Your task to perform on an android device: change the clock display to digital Image 0: 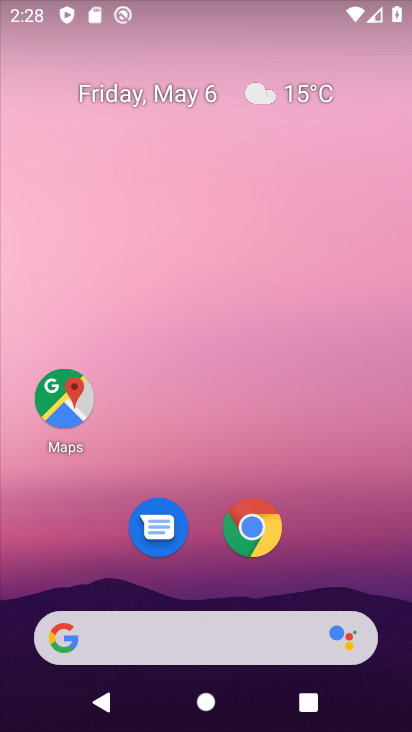
Step 0: drag from (170, 612) to (334, 222)
Your task to perform on an android device: change the clock display to digital Image 1: 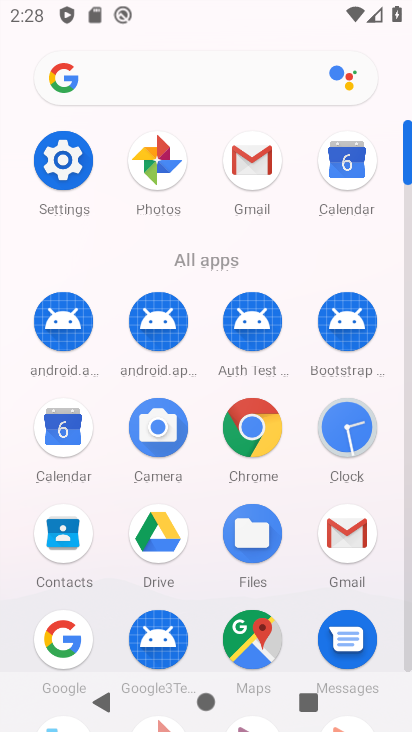
Step 1: click (341, 431)
Your task to perform on an android device: change the clock display to digital Image 2: 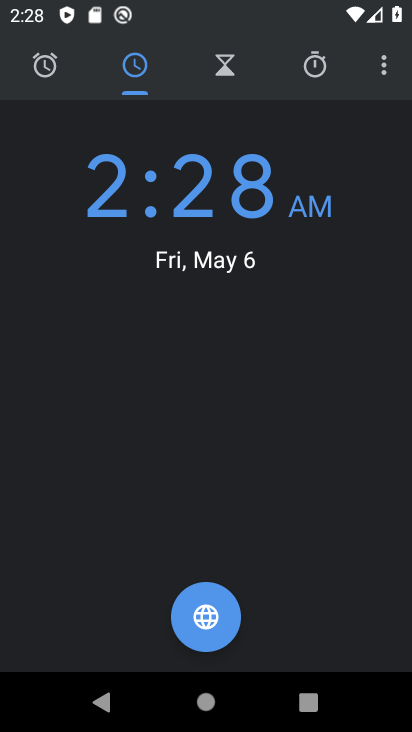
Step 2: click (378, 72)
Your task to perform on an android device: change the clock display to digital Image 3: 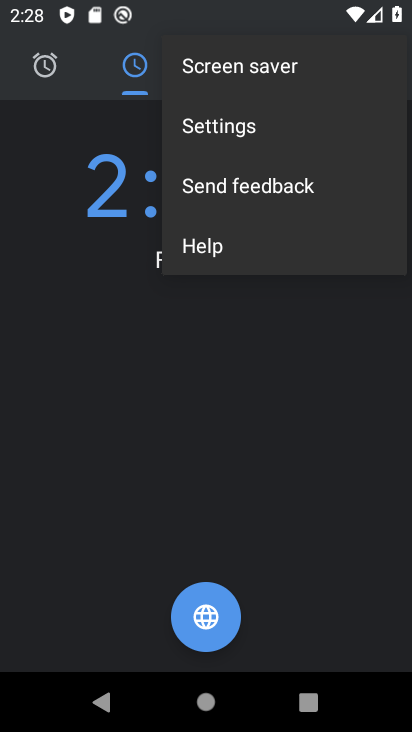
Step 3: click (253, 134)
Your task to perform on an android device: change the clock display to digital Image 4: 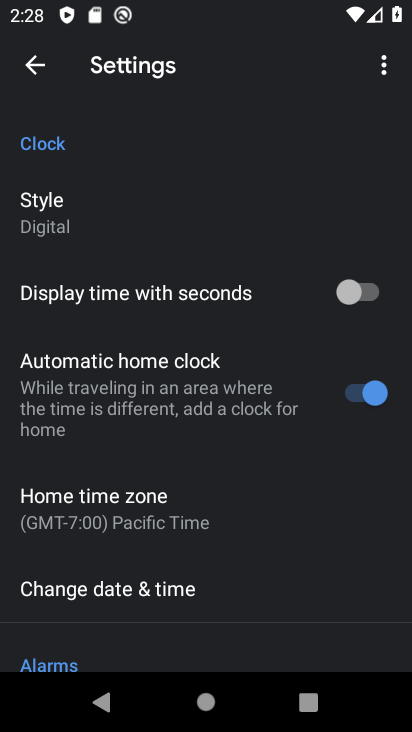
Step 4: drag from (188, 536) to (211, 248)
Your task to perform on an android device: change the clock display to digital Image 5: 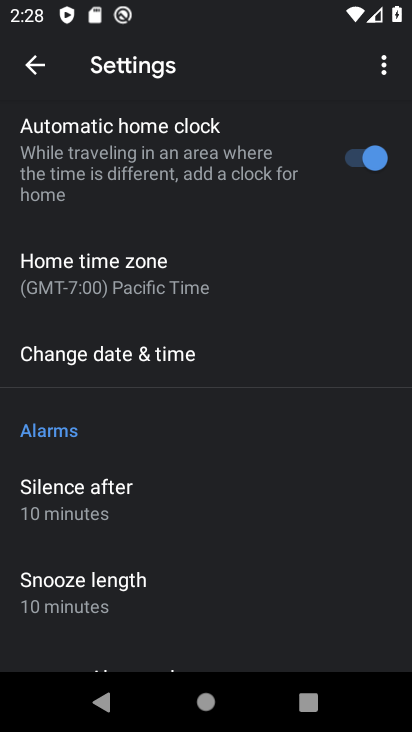
Step 5: click (45, 185)
Your task to perform on an android device: change the clock display to digital Image 6: 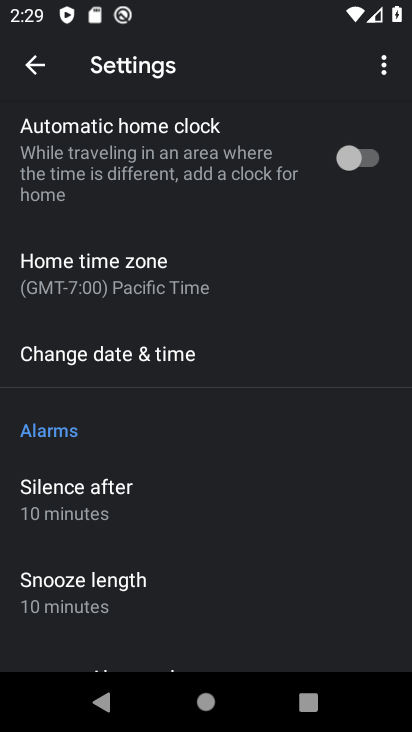
Step 6: task complete